Your task to perform on an android device: Search for seafood restaurants on Google Maps Image 0: 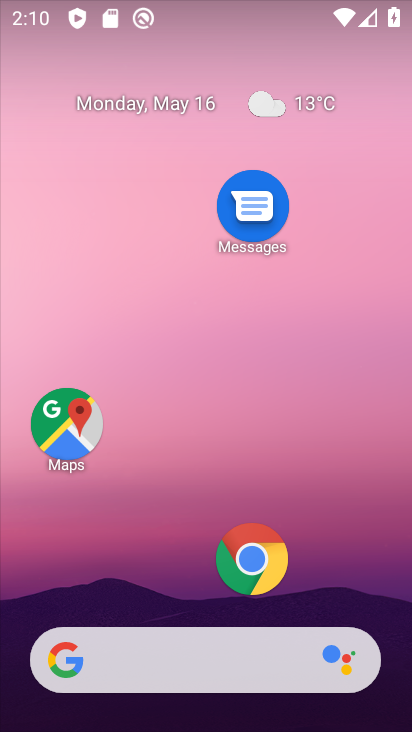
Step 0: click (59, 422)
Your task to perform on an android device: Search for seafood restaurants on Google Maps Image 1: 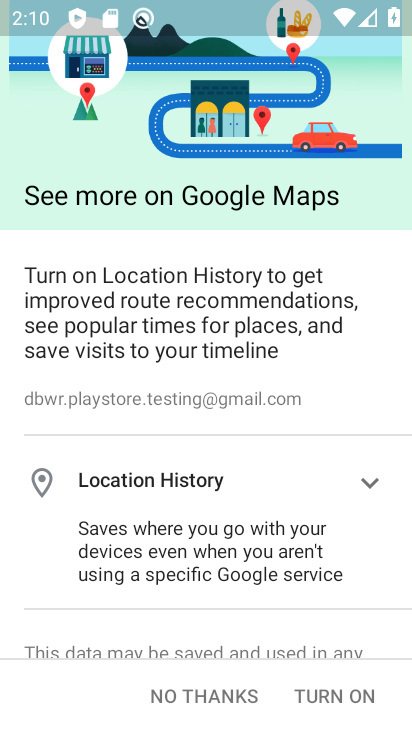
Step 1: click (308, 692)
Your task to perform on an android device: Search for seafood restaurants on Google Maps Image 2: 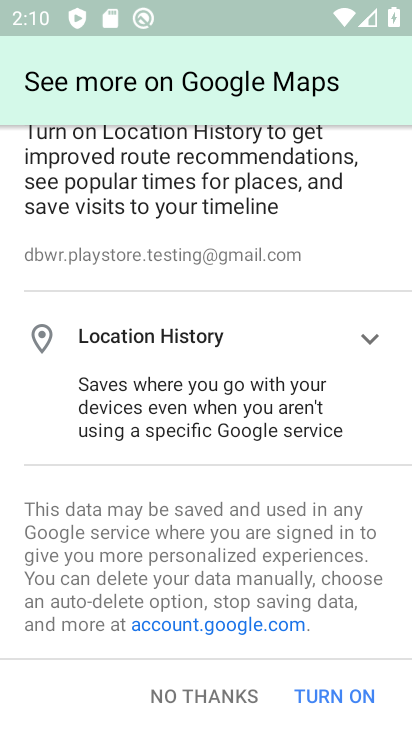
Step 2: click (335, 694)
Your task to perform on an android device: Search for seafood restaurants on Google Maps Image 3: 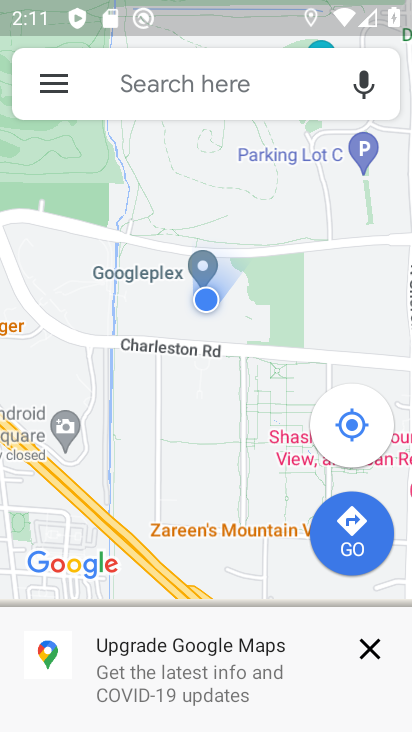
Step 3: click (197, 90)
Your task to perform on an android device: Search for seafood restaurants on Google Maps Image 4: 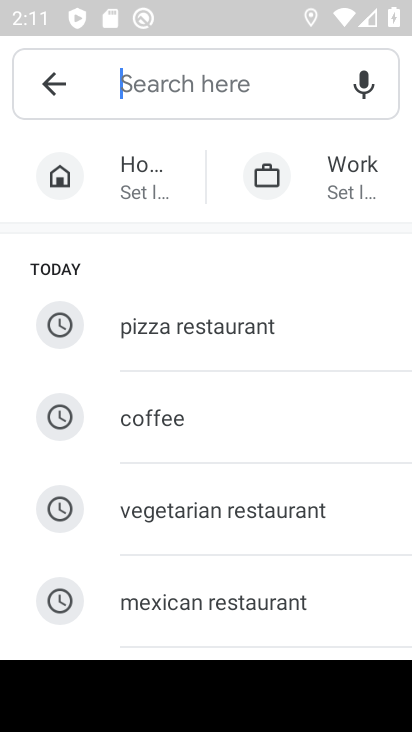
Step 4: type "seafood restaurants"
Your task to perform on an android device: Search for seafood restaurants on Google Maps Image 5: 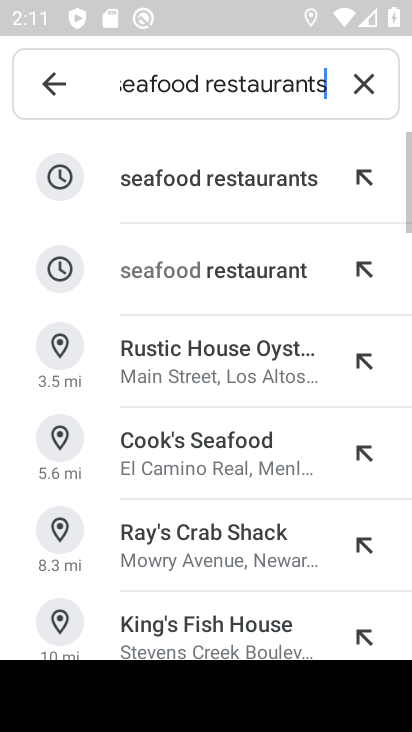
Step 5: click (256, 175)
Your task to perform on an android device: Search for seafood restaurants on Google Maps Image 6: 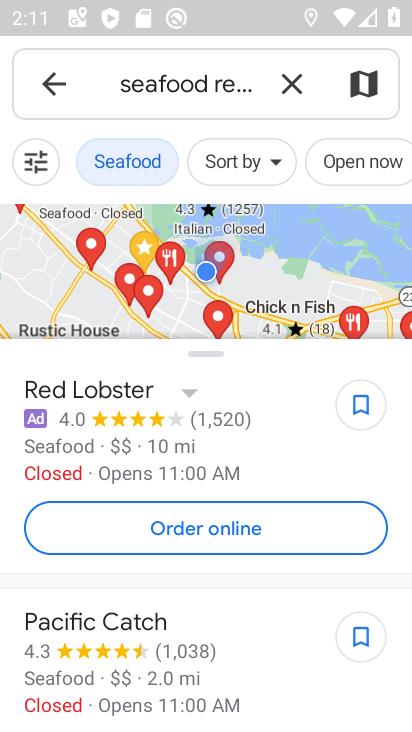
Step 6: task complete